Your task to perform on an android device: Open calendar and show me the third week of next month Image 0: 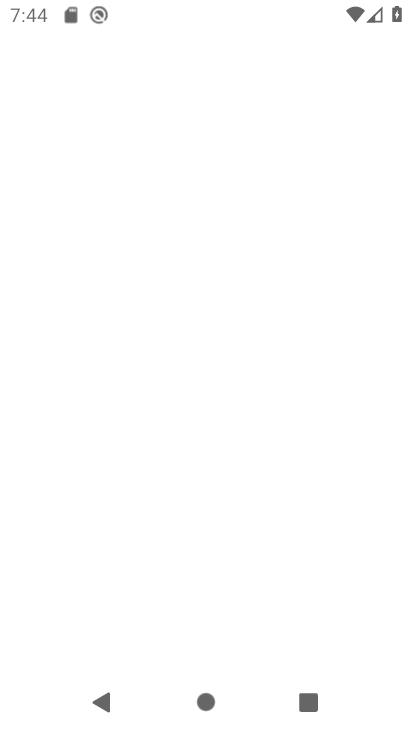
Step 0: press home button
Your task to perform on an android device: Open calendar and show me the third week of next month Image 1: 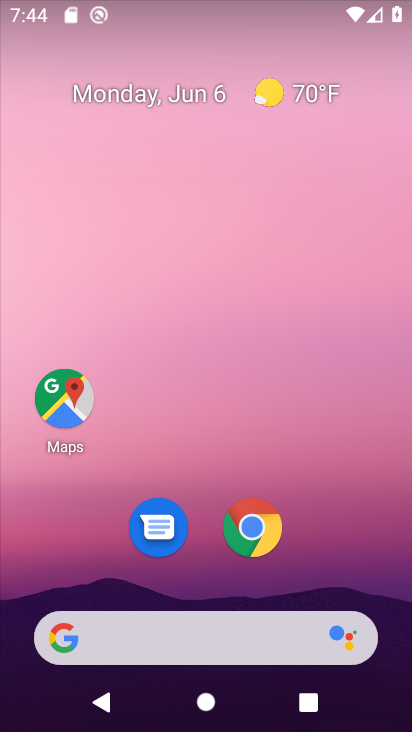
Step 1: drag from (185, 584) to (202, 97)
Your task to perform on an android device: Open calendar and show me the third week of next month Image 2: 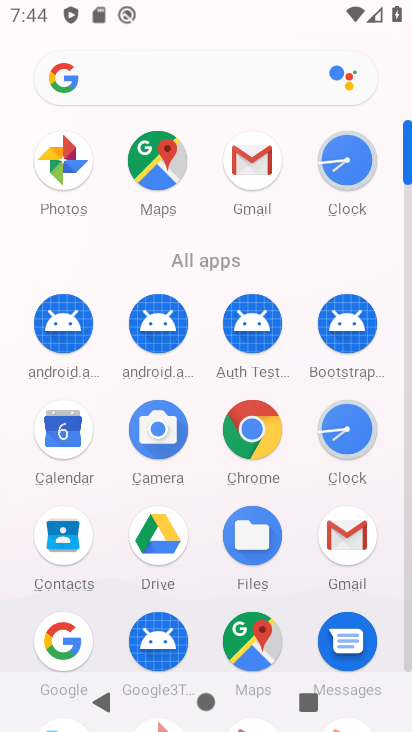
Step 2: click (74, 442)
Your task to perform on an android device: Open calendar and show me the third week of next month Image 3: 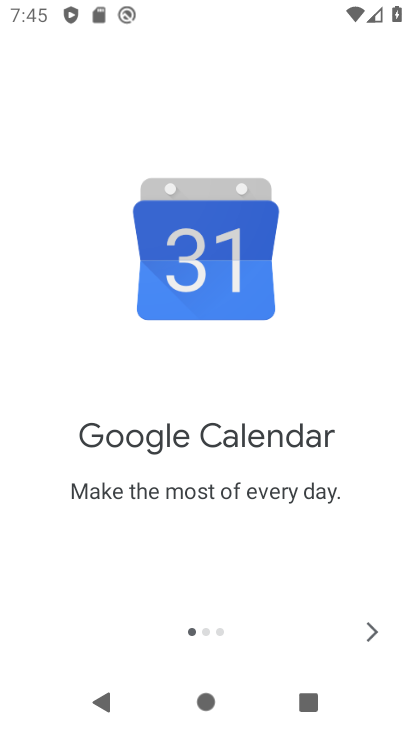
Step 3: click (370, 639)
Your task to perform on an android device: Open calendar and show me the third week of next month Image 4: 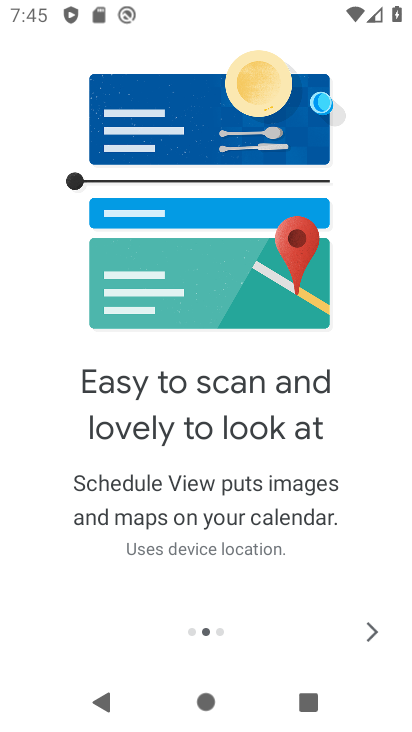
Step 4: click (371, 638)
Your task to perform on an android device: Open calendar and show me the third week of next month Image 5: 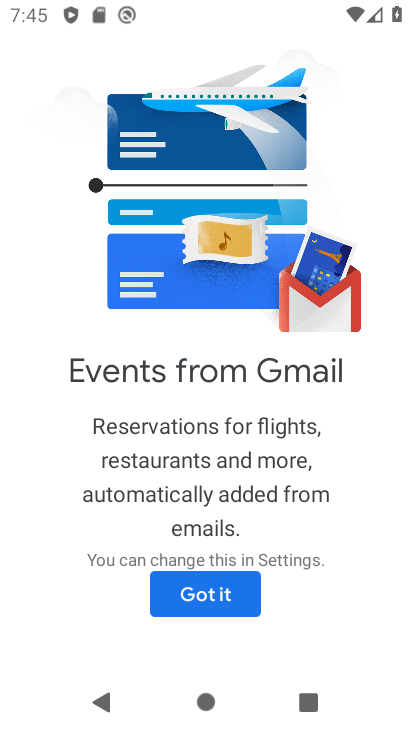
Step 5: click (214, 607)
Your task to perform on an android device: Open calendar and show me the third week of next month Image 6: 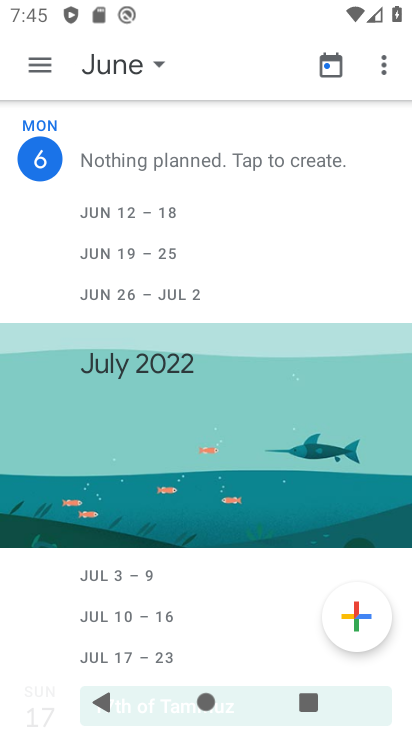
Step 6: click (149, 65)
Your task to perform on an android device: Open calendar and show me the third week of next month Image 7: 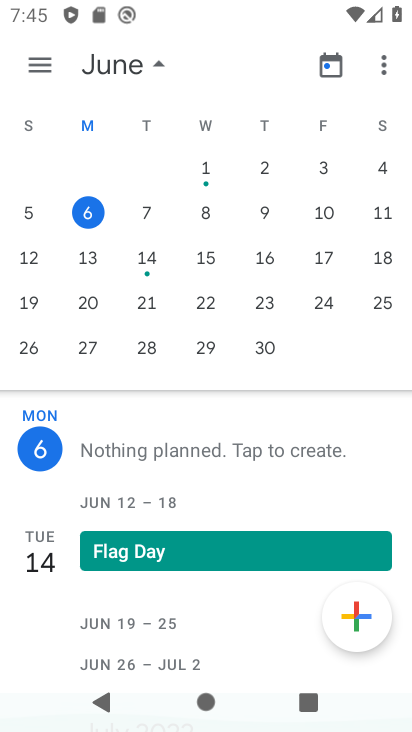
Step 7: drag from (329, 288) to (55, 273)
Your task to perform on an android device: Open calendar and show me the third week of next month Image 8: 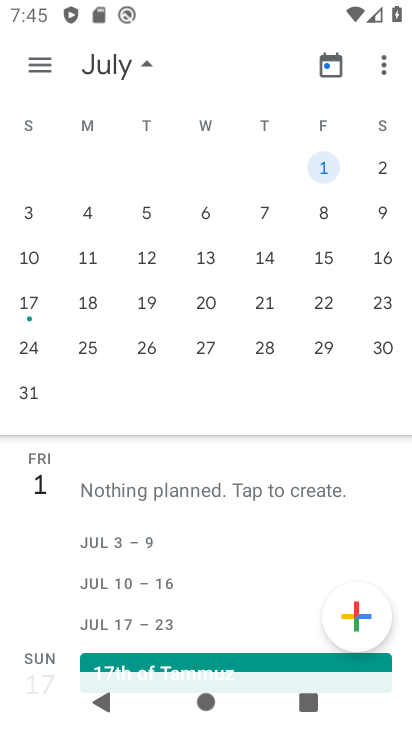
Step 8: click (29, 271)
Your task to perform on an android device: Open calendar and show me the third week of next month Image 9: 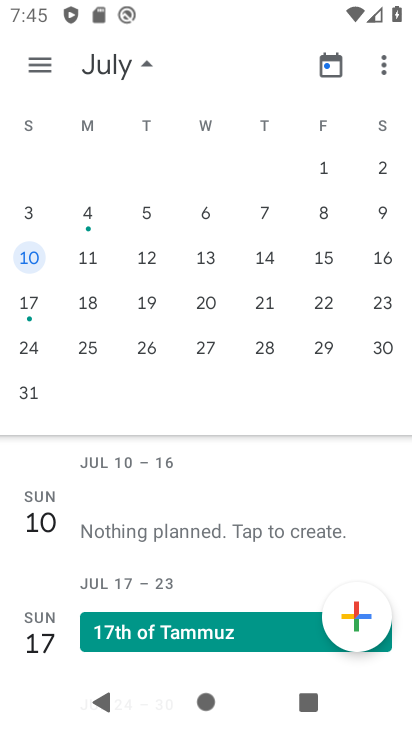
Step 9: task complete